Your task to perform on an android device: add a contact Image 0: 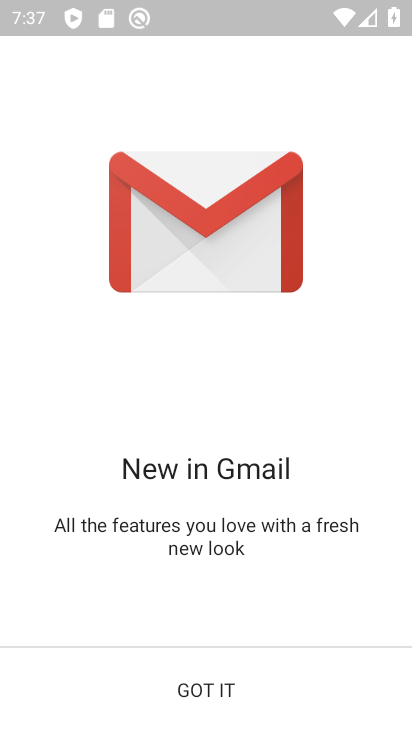
Step 0: press back button
Your task to perform on an android device: add a contact Image 1: 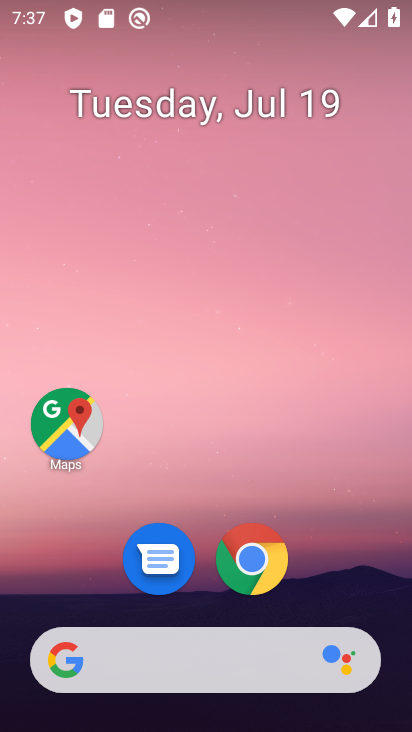
Step 1: drag from (108, 607) to (253, 141)
Your task to perform on an android device: add a contact Image 2: 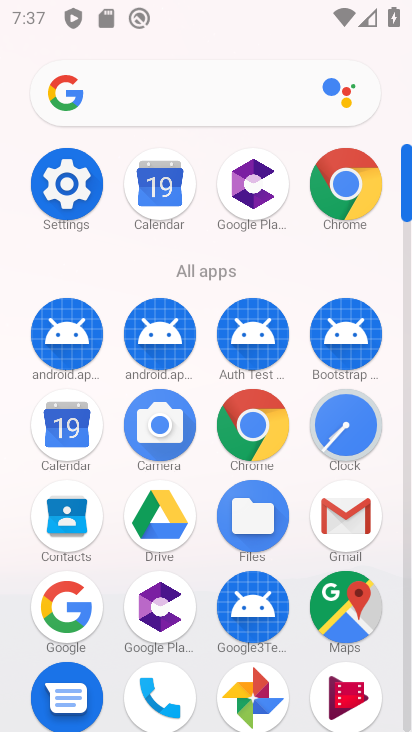
Step 2: click (22, 504)
Your task to perform on an android device: add a contact Image 3: 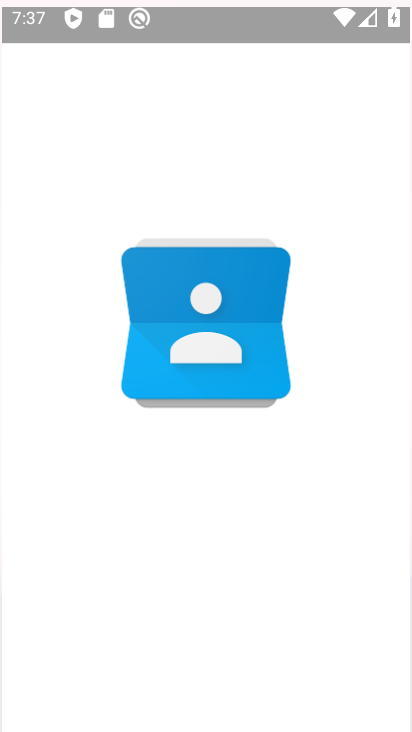
Step 3: click (43, 518)
Your task to perform on an android device: add a contact Image 4: 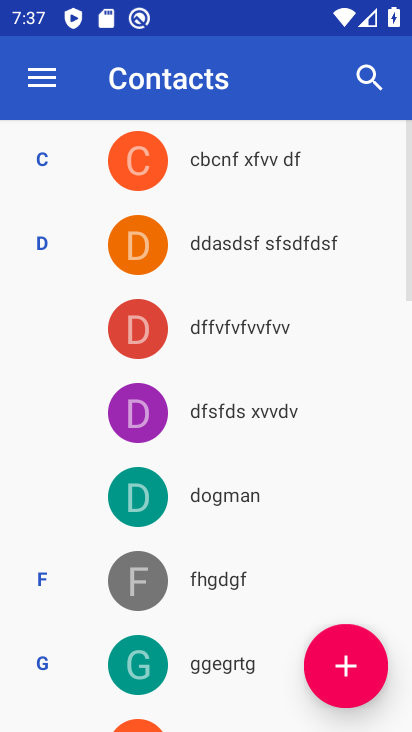
Step 4: click (341, 658)
Your task to perform on an android device: add a contact Image 5: 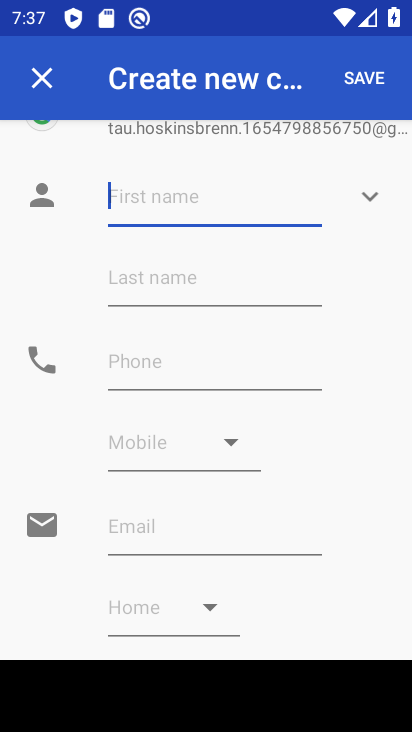
Step 5: click (158, 199)
Your task to perform on an android device: add a contact Image 6: 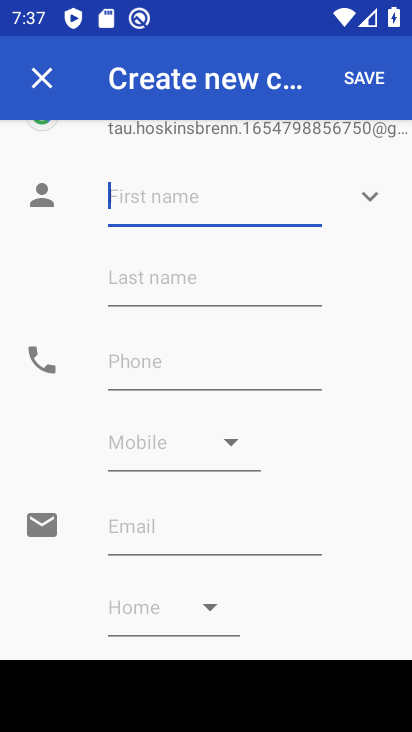
Step 6: type "ggvh"
Your task to perform on an android device: add a contact Image 7: 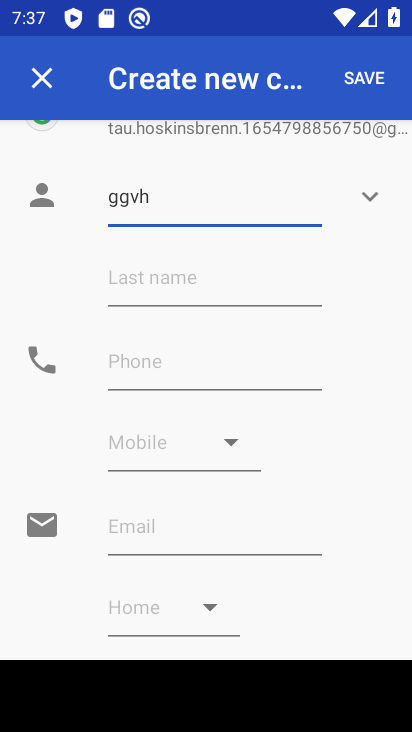
Step 7: click (141, 366)
Your task to perform on an android device: add a contact Image 8: 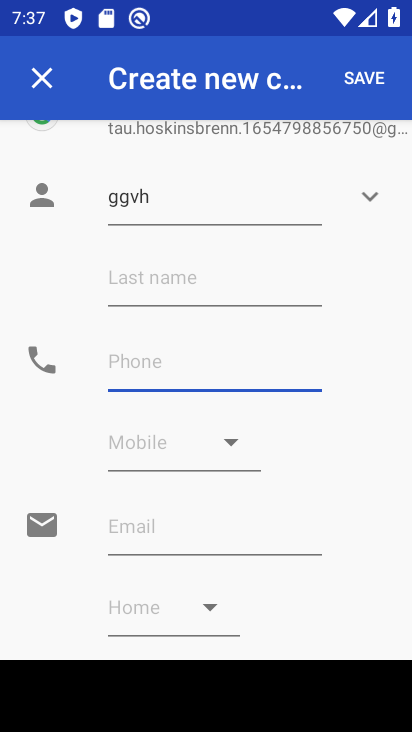
Step 8: type "767676"
Your task to perform on an android device: add a contact Image 9: 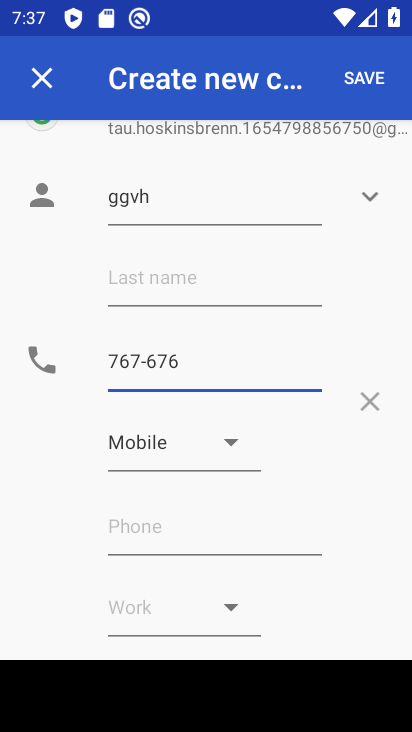
Step 9: click (375, 77)
Your task to perform on an android device: add a contact Image 10: 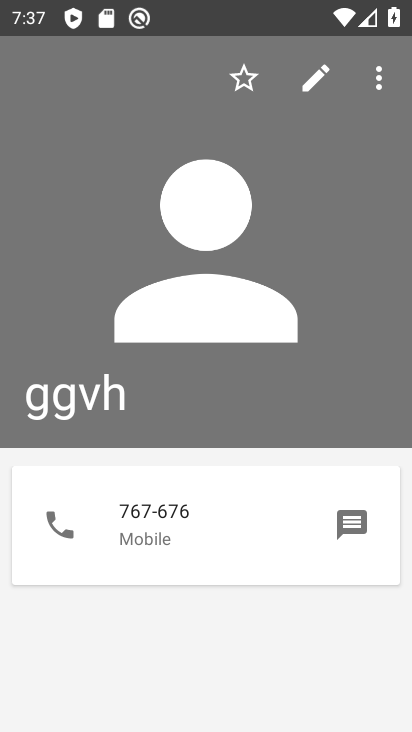
Step 10: task complete